Your task to perform on an android device: check storage Image 0: 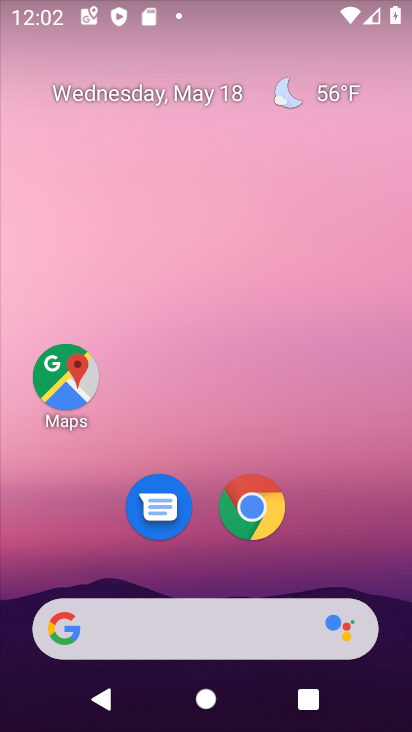
Step 0: drag from (391, 593) to (337, 227)
Your task to perform on an android device: check storage Image 1: 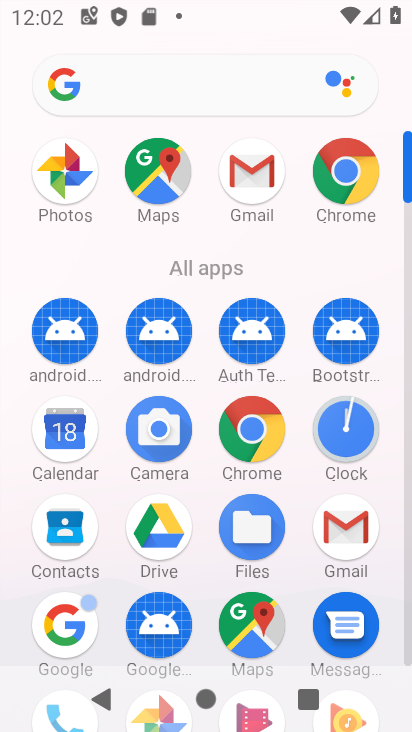
Step 1: click (404, 650)
Your task to perform on an android device: check storage Image 2: 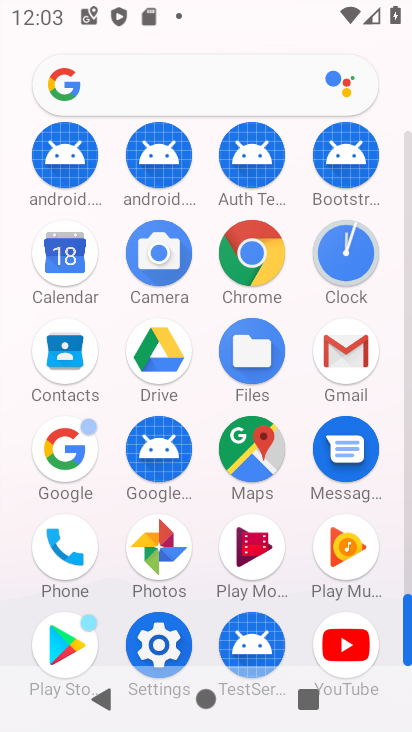
Step 2: click (157, 638)
Your task to perform on an android device: check storage Image 3: 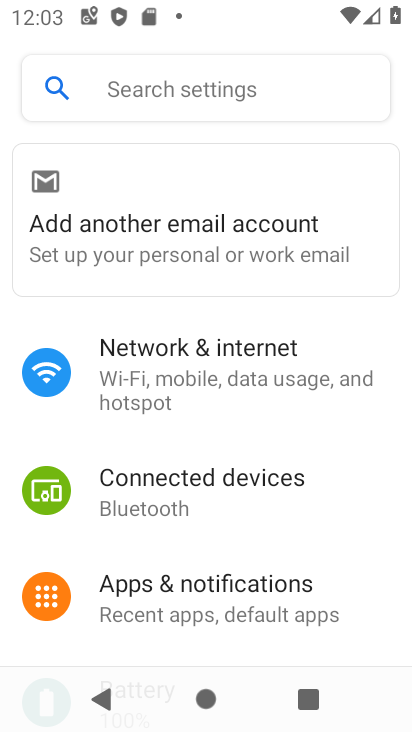
Step 3: drag from (301, 641) to (264, 127)
Your task to perform on an android device: check storage Image 4: 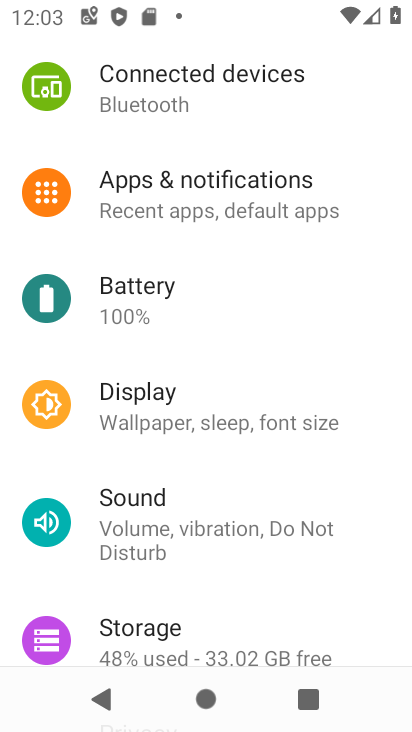
Step 4: click (267, 630)
Your task to perform on an android device: check storage Image 5: 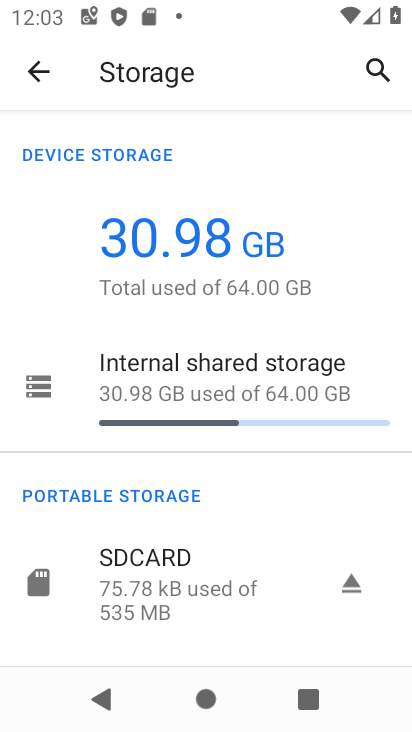
Step 5: task complete